Your task to perform on an android device: Open the stopwatch Image 0: 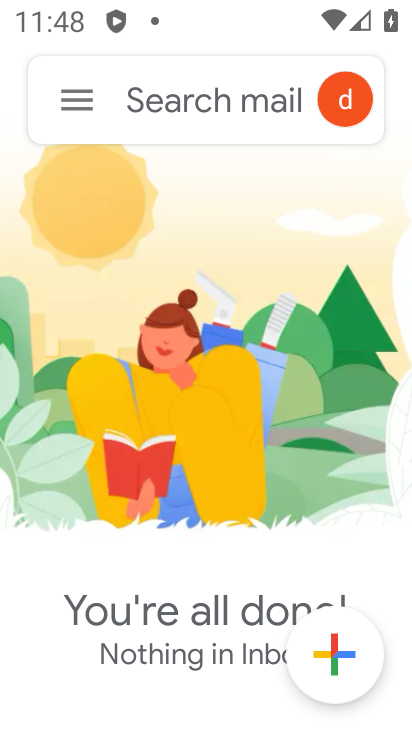
Step 0: press home button
Your task to perform on an android device: Open the stopwatch Image 1: 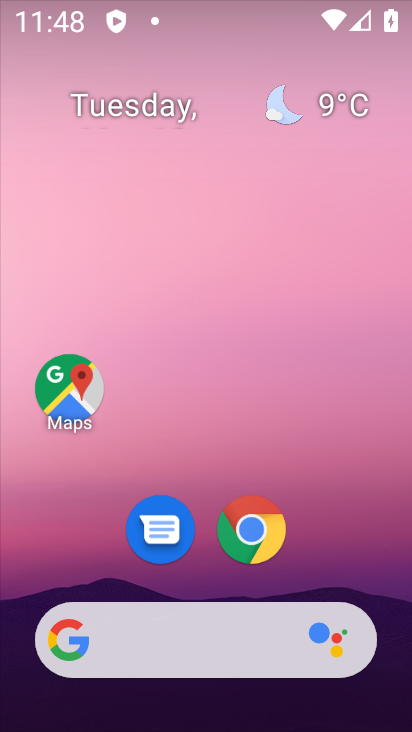
Step 1: drag from (253, 452) to (291, 111)
Your task to perform on an android device: Open the stopwatch Image 2: 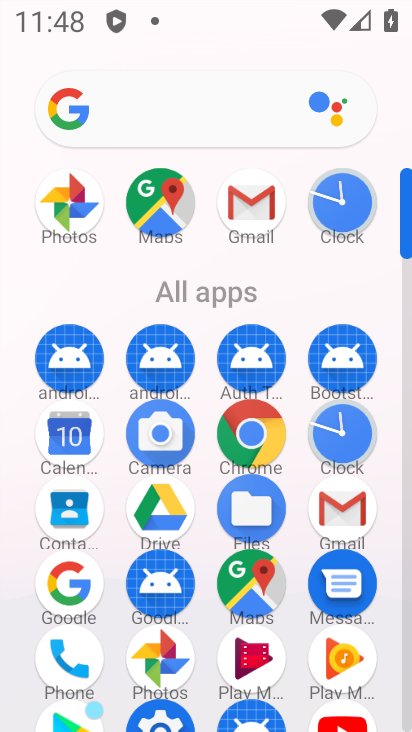
Step 2: click (341, 222)
Your task to perform on an android device: Open the stopwatch Image 3: 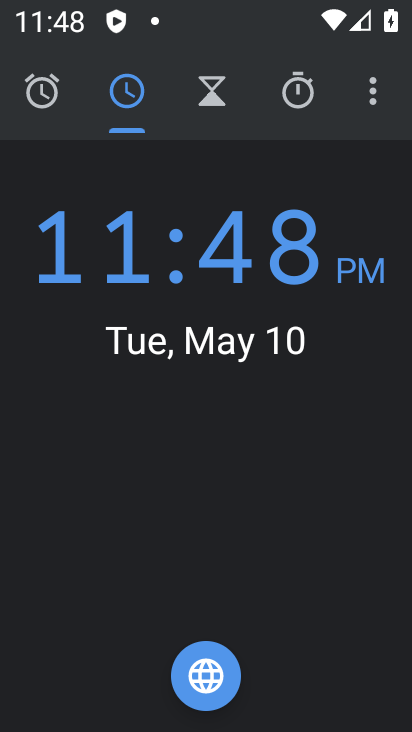
Step 3: click (296, 95)
Your task to perform on an android device: Open the stopwatch Image 4: 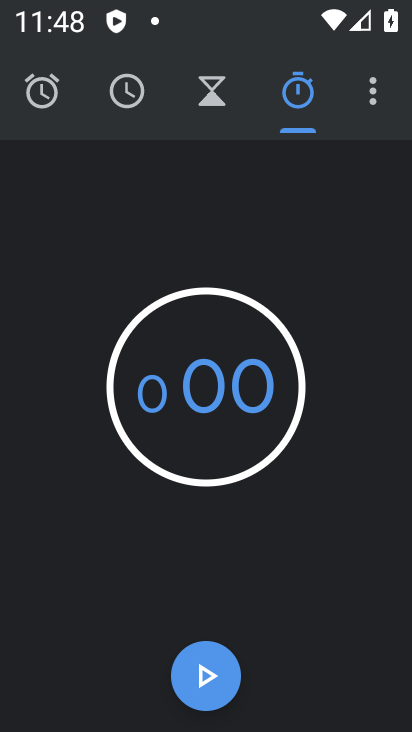
Step 4: task complete